Your task to perform on an android device: Go to CNN.com Image 0: 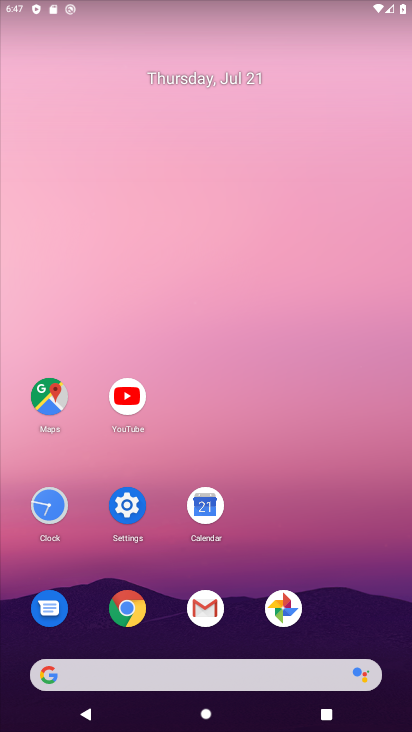
Step 0: click (124, 607)
Your task to perform on an android device: Go to CNN.com Image 1: 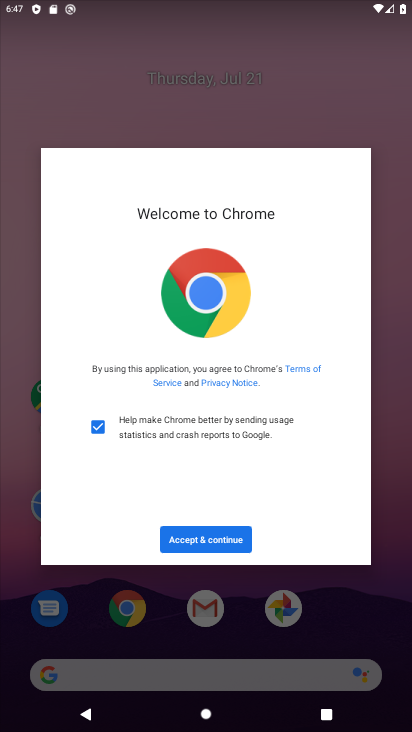
Step 1: click (205, 533)
Your task to perform on an android device: Go to CNN.com Image 2: 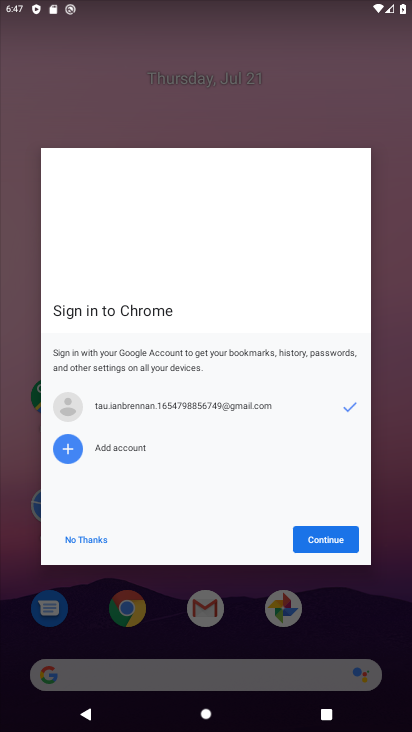
Step 2: click (331, 538)
Your task to perform on an android device: Go to CNN.com Image 3: 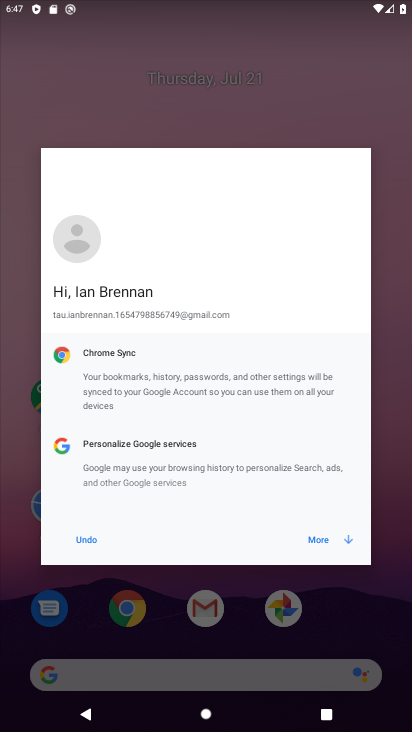
Step 3: click (345, 538)
Your task to perform on an android device: Go to CNN.com Image 4: 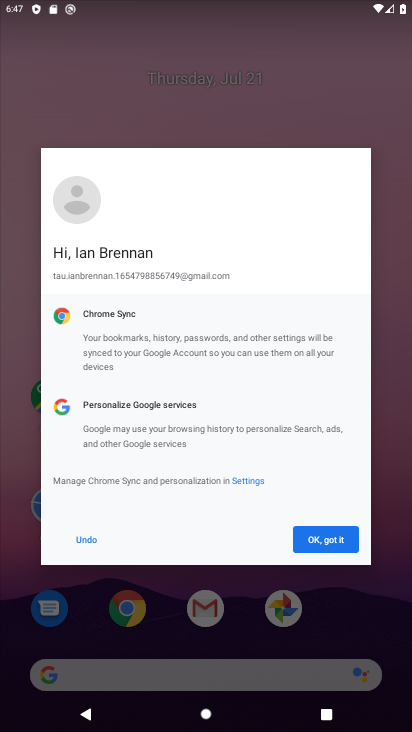
Step 4: click (327, 537)
Your task to perform on an android device: Go to CNN.com Image 5: 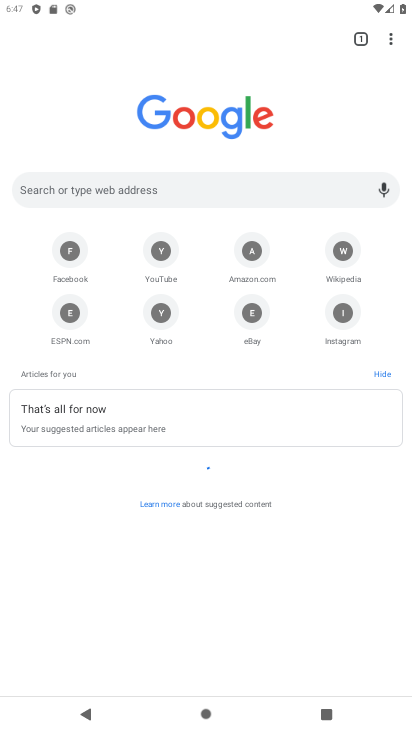
Step 5: click (108, 197)
Your task to perform on an android device: Go to CNN.com Image 6: 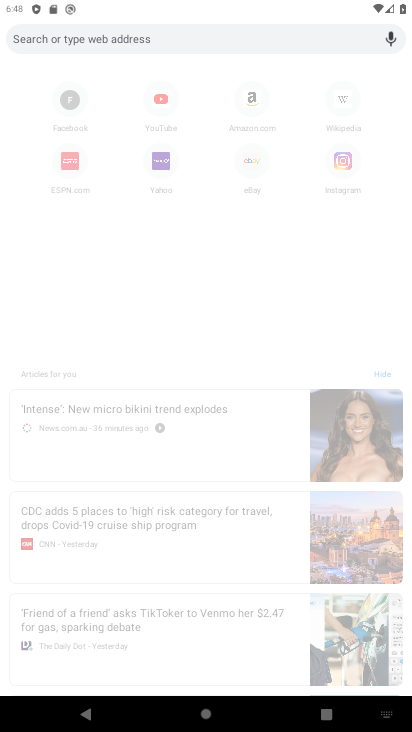
Step 6: type "cnn.com"
Your task to perform on an android device: Go to CNN.com Image 7: 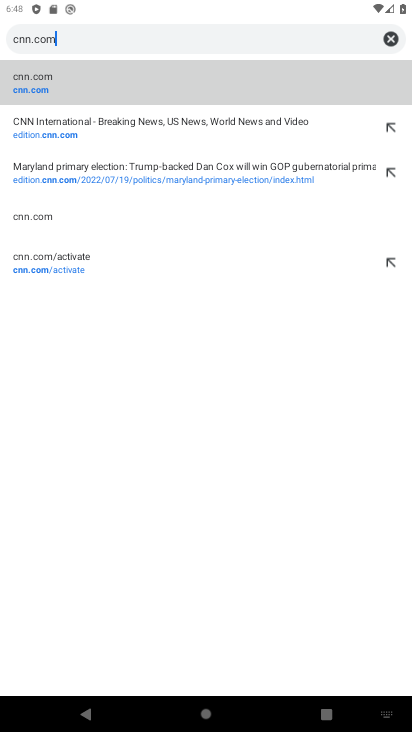
Step 7: click (43, 92)
Your task to perform on an android device: Go to CNN.com Image 8: 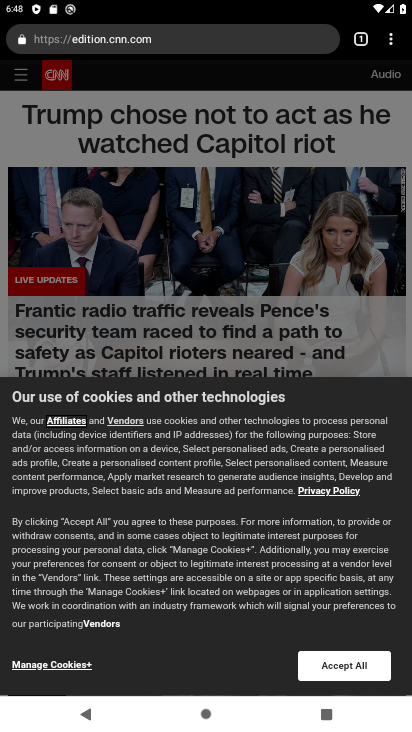
Step 8: task complete